Your task to perform on an android device: Do I have any events today? Image 0: 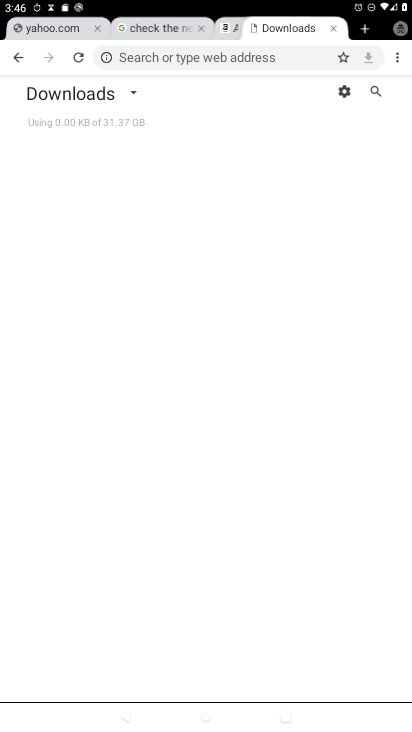
Step 0: press home button
Your task to perform on an android device: Do I have any events today? Image 1: 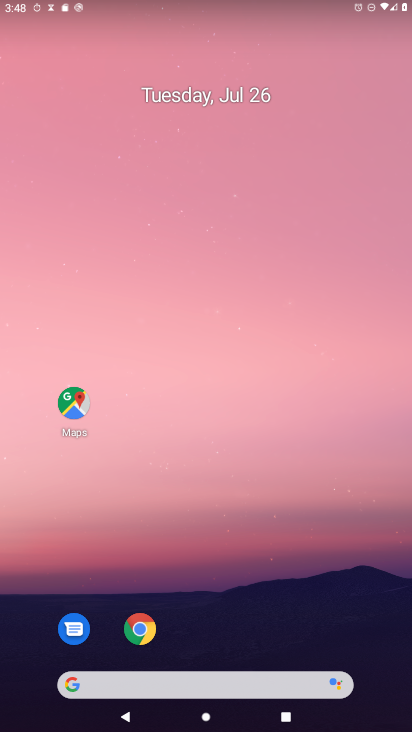
Step 1: drag from (261, 606) to (163, 14)
Your task to perform on an android device: Do I have any events today? Image 2: 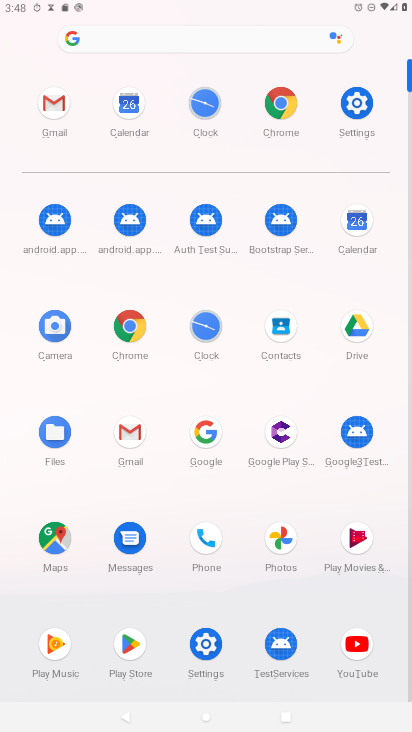
Step 2: click (367, 223)
Your task to perform on an android device: Do I have any events today? Image 3: 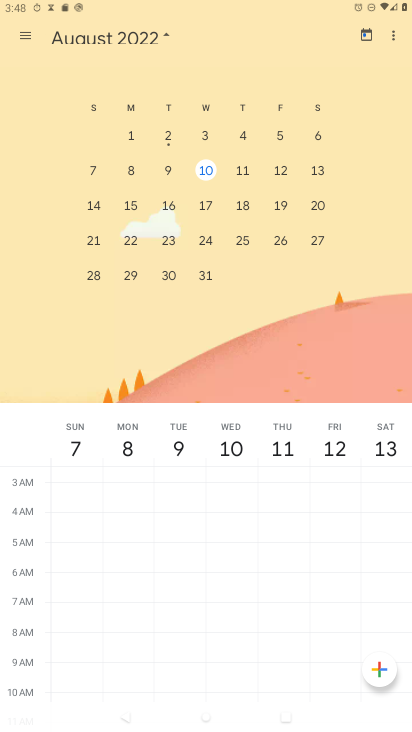
Step 3: drag from (77, 202) to (336, 174)
Your task to perform on an android device: Do I have any events today? Image 4: 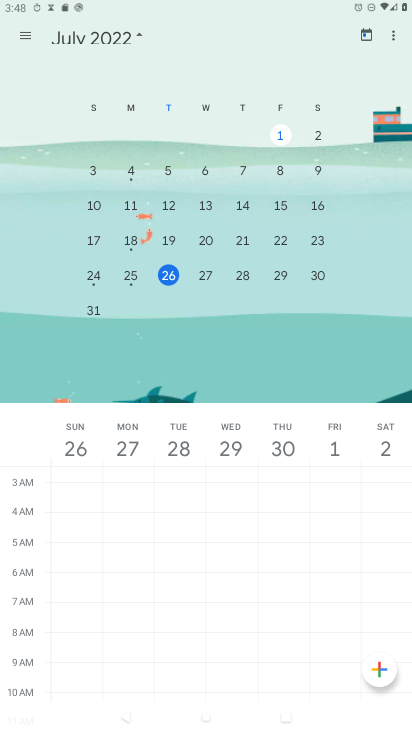
Step 4: click (284, 280)
Your task to perform on an android device: Do I have any events today? Image 5: 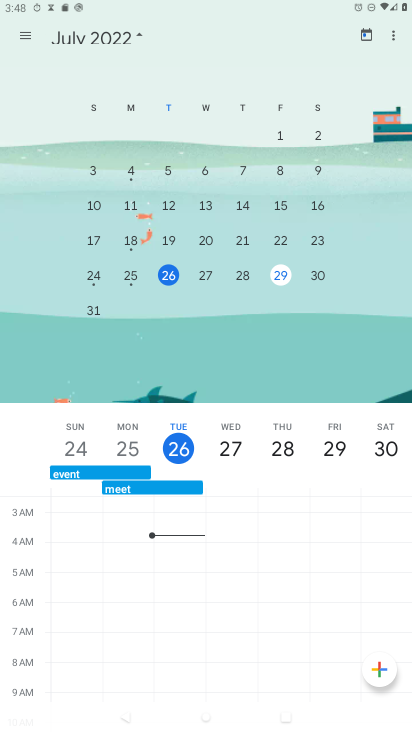
Step 5: task complete